Your task to perform on an android device: move a message to another label in the gmail app Image 0: 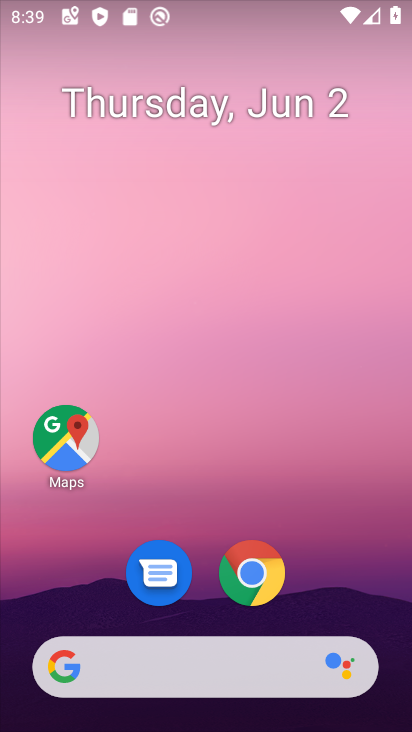
Step 0: press home button
Your task to perform on an android device: move a message to another label in the gmail app Image 1: 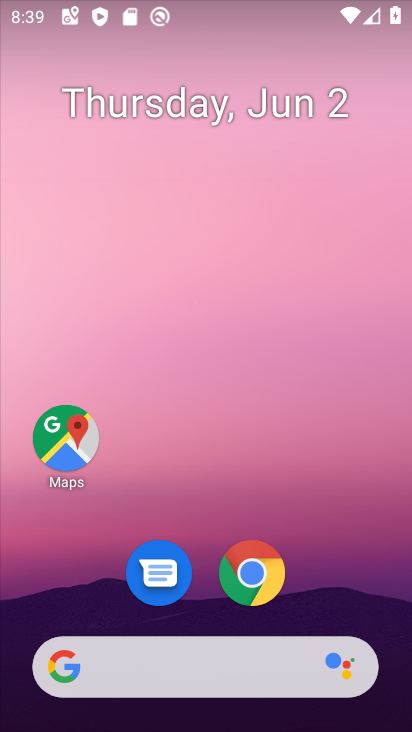
Step 1: drag from (375, 574) to (223, 47)
Your task to perform on an android device: move a message to another label in the gmail app Image 2: 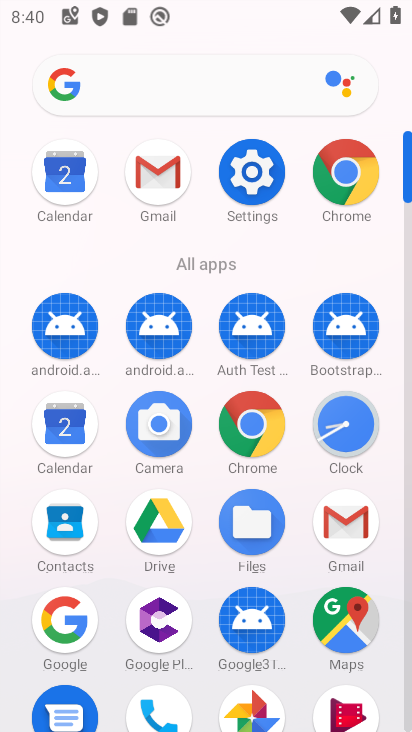
Step 2: click (173, 164)
Your task to perform on an android device: move a message to another label in the gmail app Image 3: 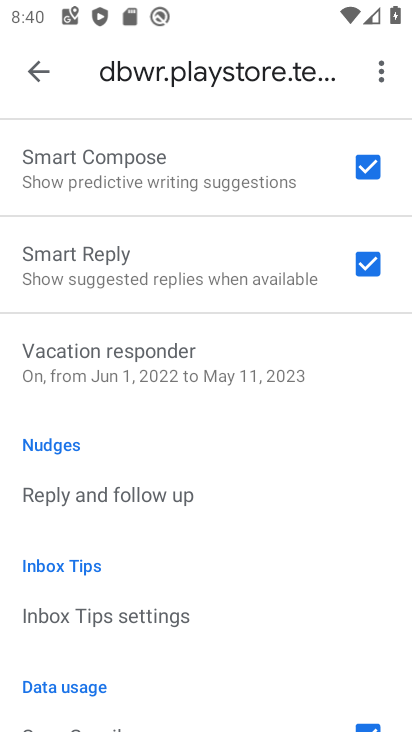
Step 3: click (40, 72)
Your task to perform on an android device: move a message to another label in the gmail app Image 4: 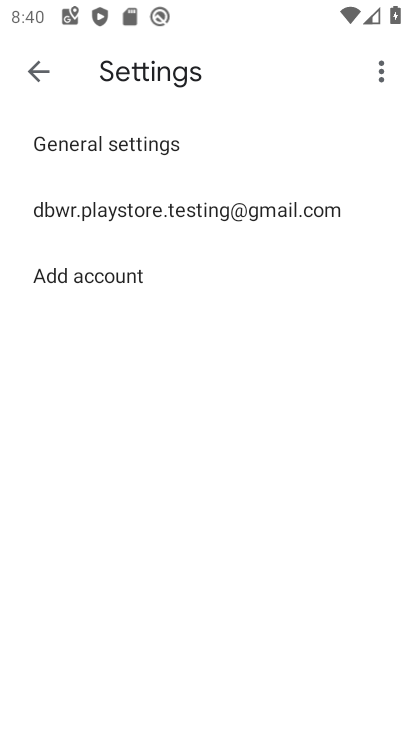
Step 4: click (40, 72)
Your task to perform on an android device: move a message to another label in the gmail app Image 5: 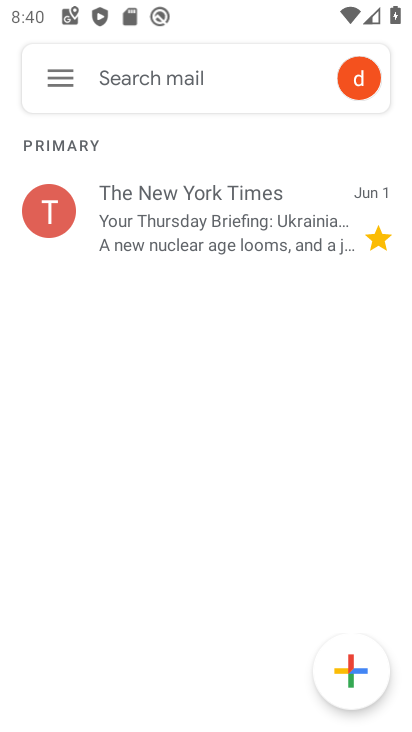
Step 5: click (203, 232)
Your task to perform on an android device: move a message to another label in the gmail app Image 6: 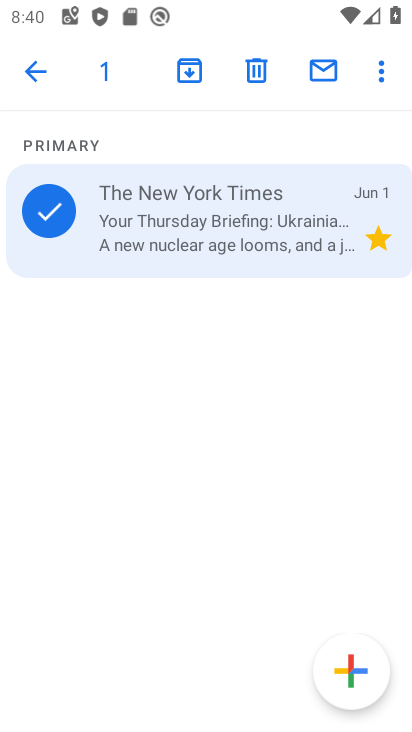
Step 6: click (381, 74)
Your task to perform on an android device: move a message to another label in the gmail app Image 7: 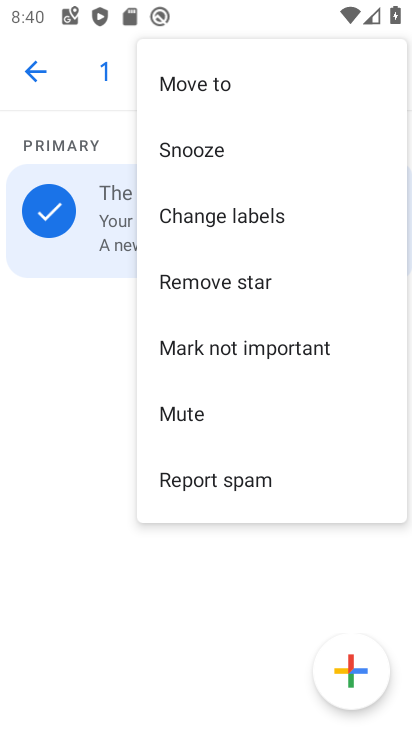
Step 7: click (237, 220)
Your task to perform on an android device: move a message to another label in the gmail app Image 8: 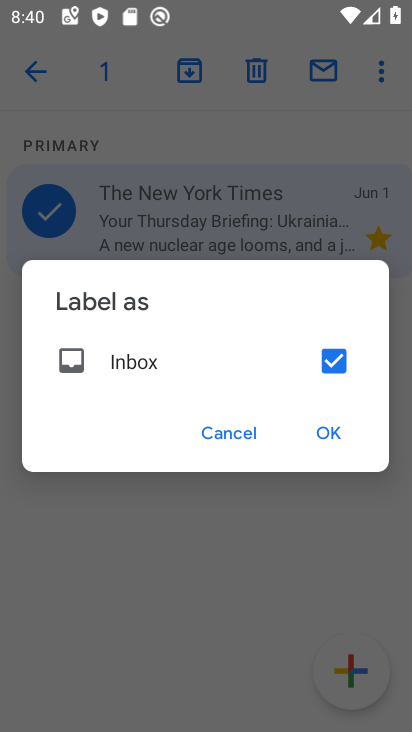
Step 8: click (337, 429)
Your task to perform on an android device: move a message to another label in the gmail app Image 9: 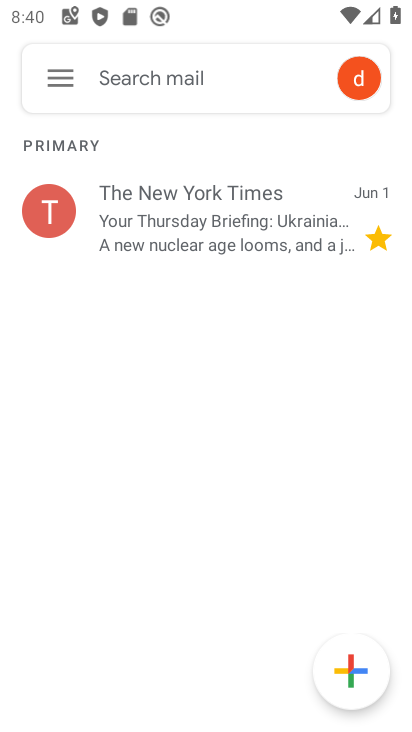
Step 9: click (194, 234)
Your task to perform on an android device: move a message to another label in the gmail app Image 10: 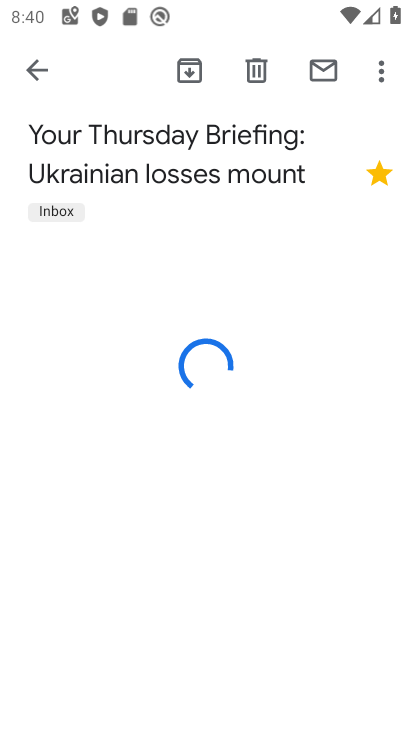
Step 10: click (383, 71)
Your task to perform on an android device: move a message to another label in the gmail app Image 11: 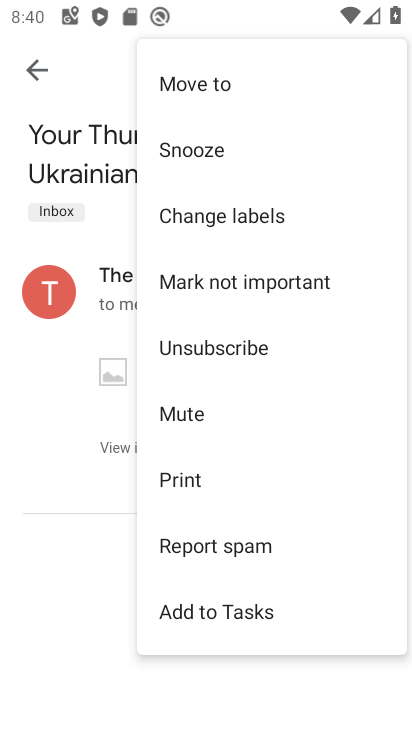
Step 11: click (246, 208)
Your task to perform on an android device: move a message to another label in the gmail app Image 12: 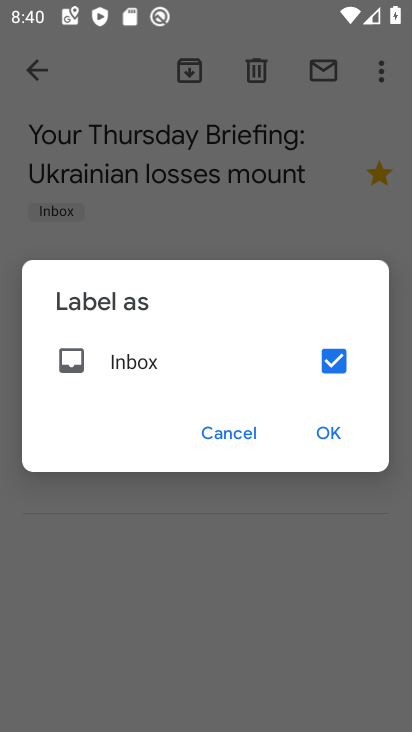
Step 12: click (204, 348)
Your task to perform on an android device: move a message to another label in the gmail app Image 13: 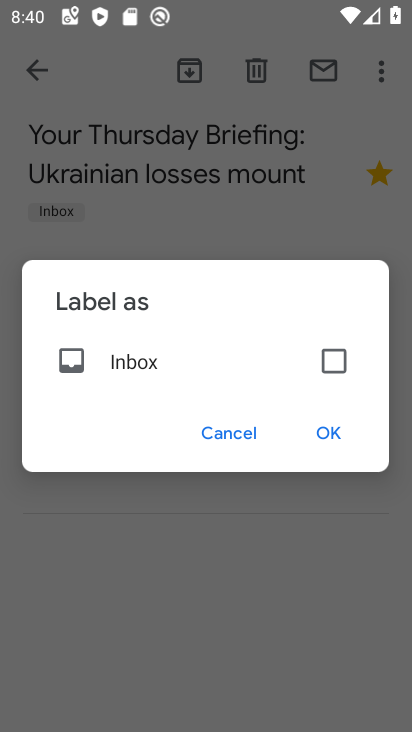
Step 13: click (204, 348)
Your task to perform on an android device: move a message to another label in the gmail app Image 14: 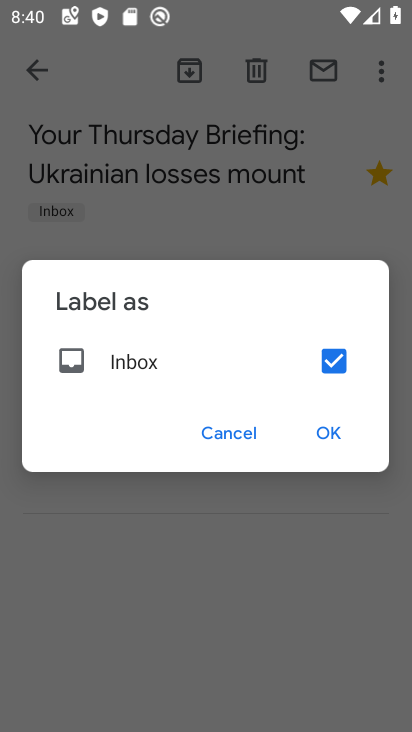
Step 14: click (242, 460)
Your task to perform on an android device: move a message to another label in the gmail app Image 15: 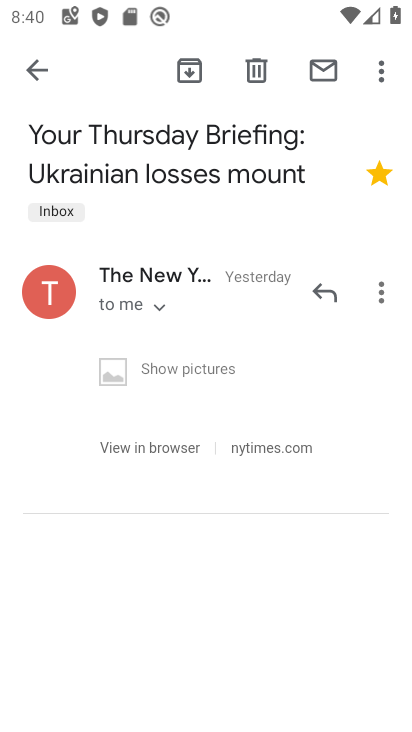
Step 15: click (378, 292)
Your task to perform on an android device: move a message to another label in the gmail app Image 16: 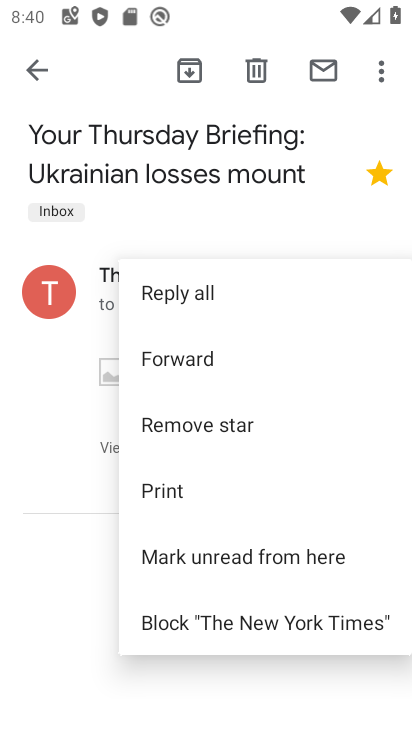
Step 16: click (305, 188)
Your task to perform on an android device: move a message to another label in the gmail app Image 17: 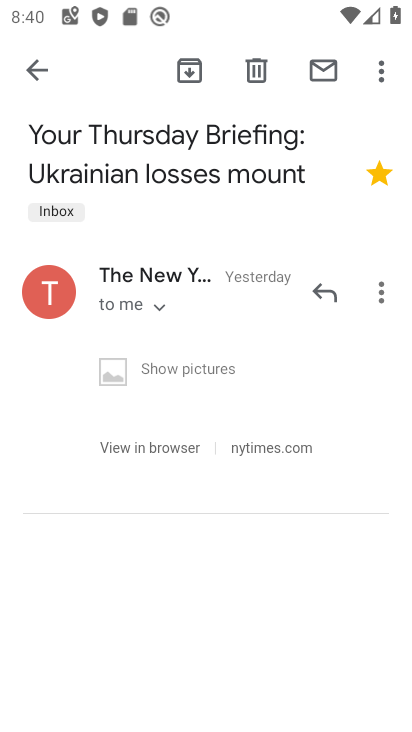
Step 17: task complete